Your task to perform on an android device: Open display settings Image 0: 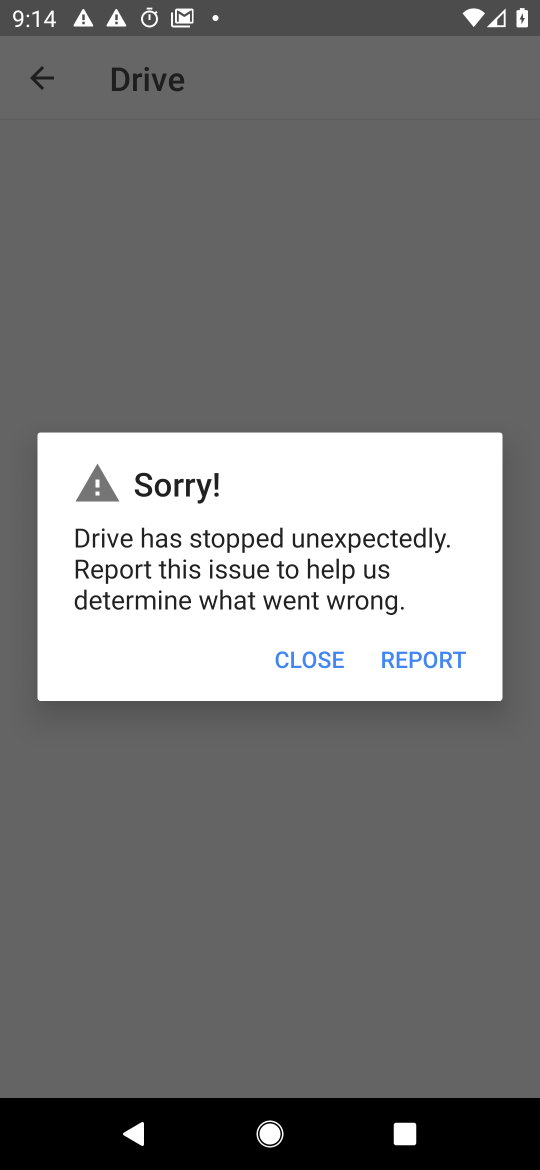
Step 0: press back button
Your task to perform on an android device: Open display settings Image 1: 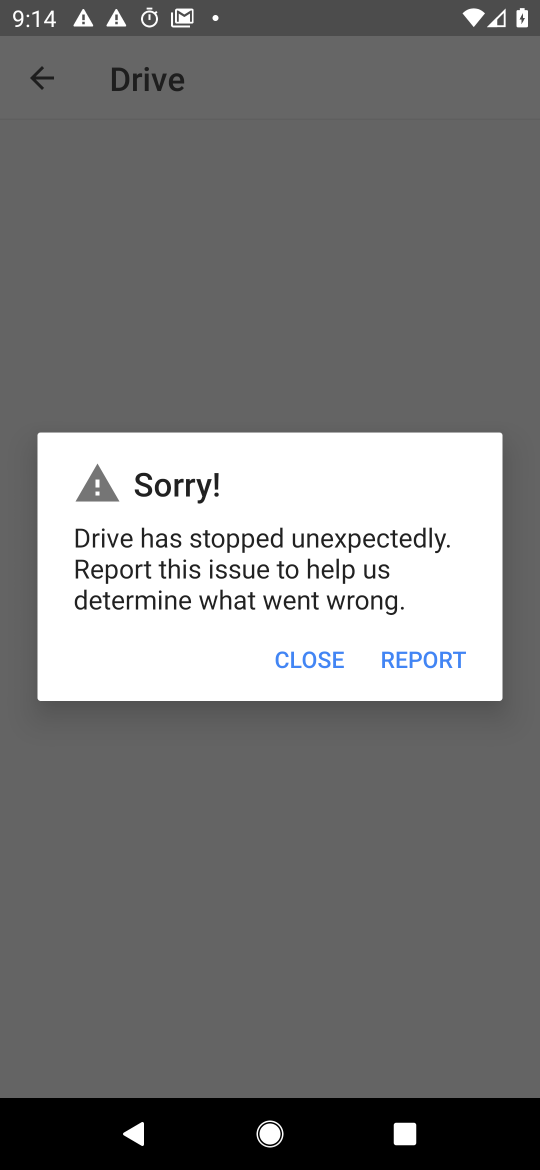
Step 1: click (317, 660)
Your task to perform on an android device: Open display settings Image 2: 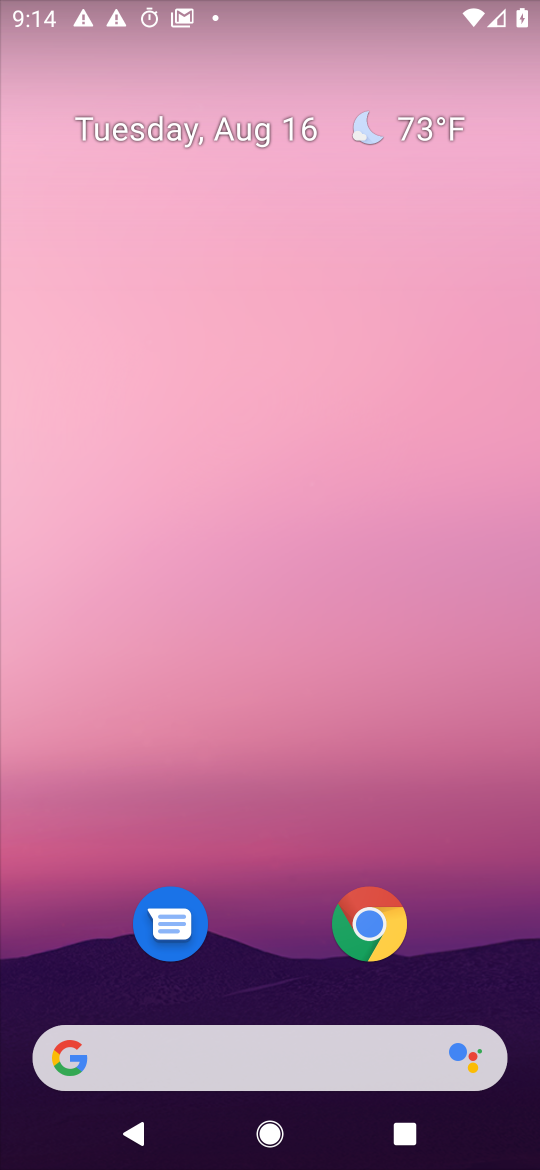
Step 2: drag from (288, 832) to (350, 42)
Your task to perform on an android device: Open display settings Image 3: 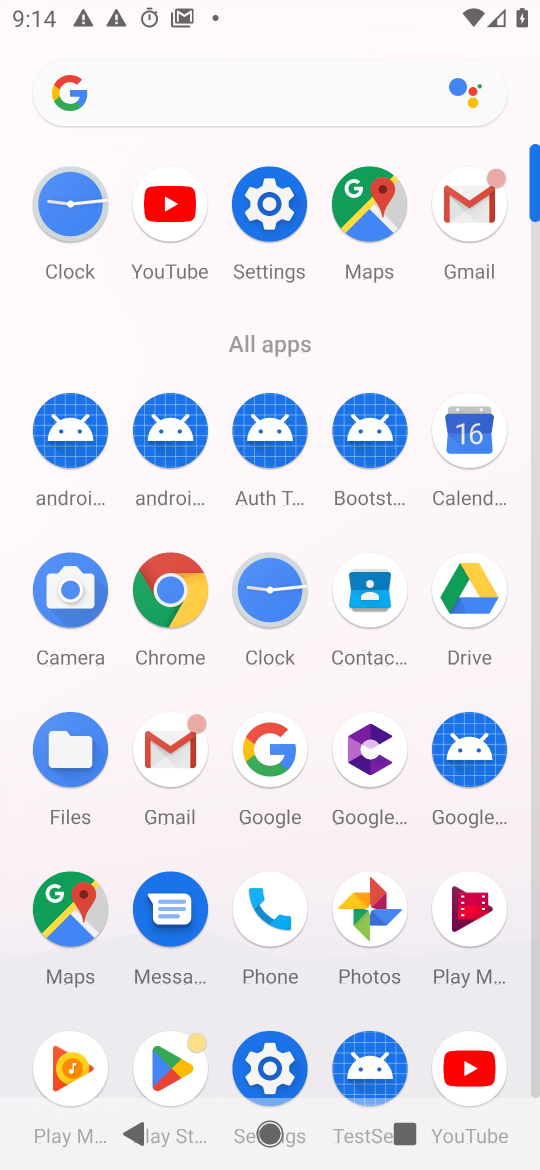
Step 3: click (271, 205)
Your task to perform on an android device: Open display settings Image 4: 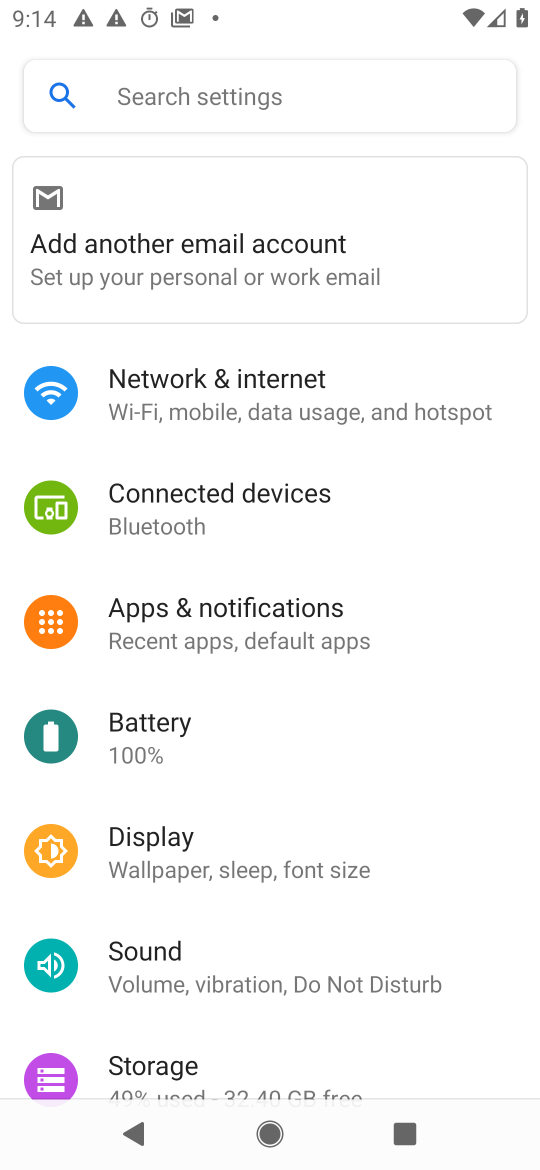
Step 4: click (170, 850)
Your task to perform on an android device: Open display settings Image 5: 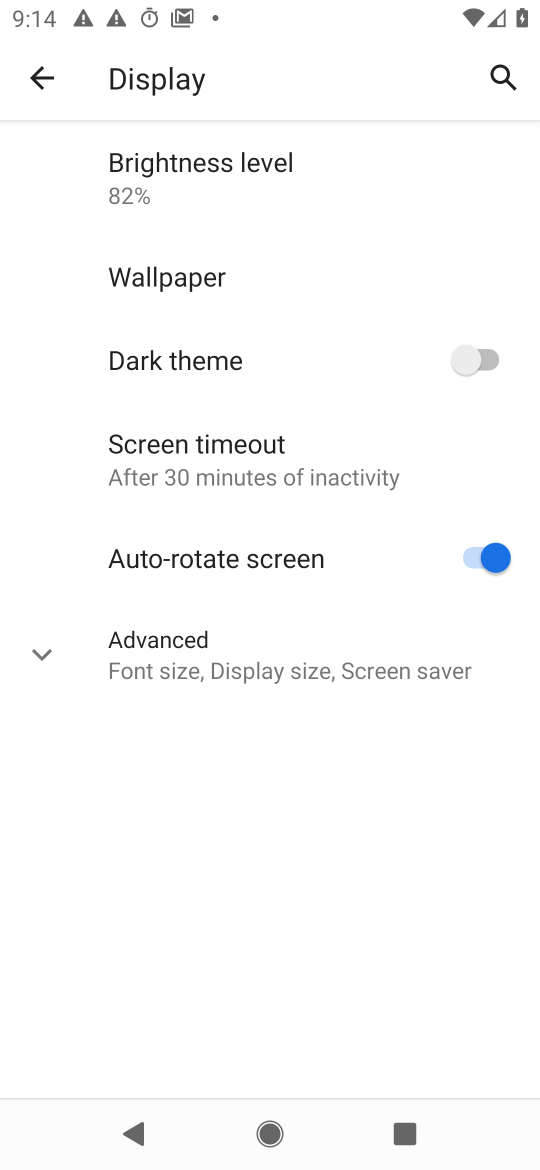
Step 5: task complete